Your task to perform on an android device: Search for the new Nintendo switch on Best Buy Image 0: 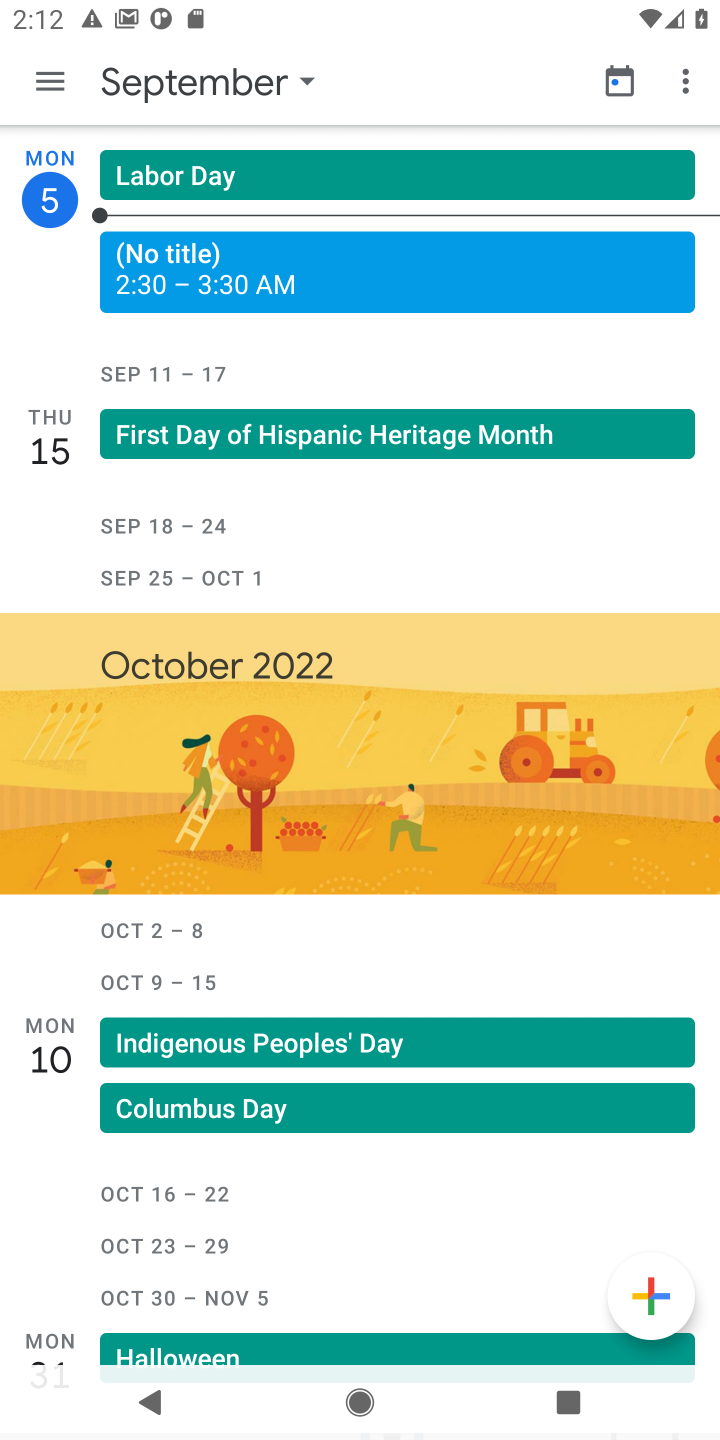
Step 0: press home button
Your task to perform on an android device: Search for the new Nintendo switch on Best Buy Image 1: 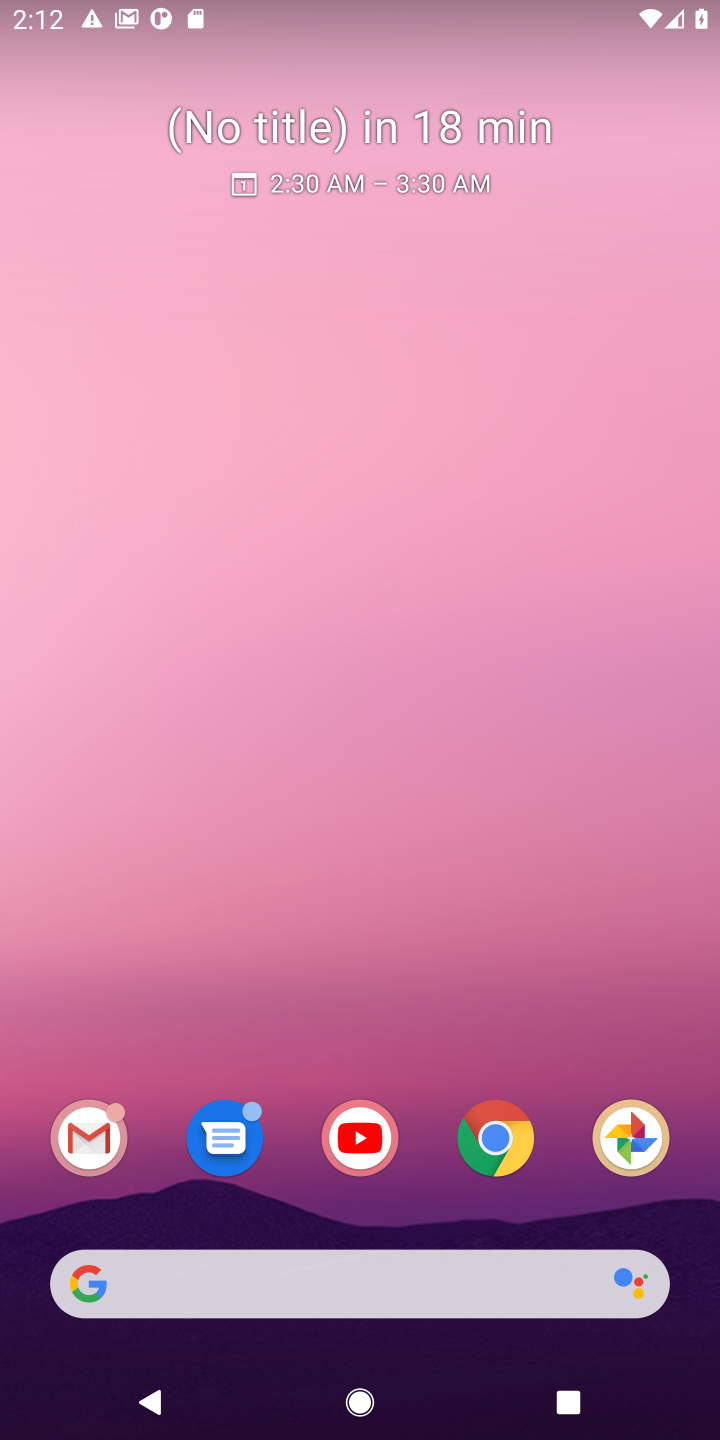
Step 1: drag from (439, 1248) to (510, 137)
Your task to perform on an android device: Search for the new Nintendo switch on Best Buy Image 2: 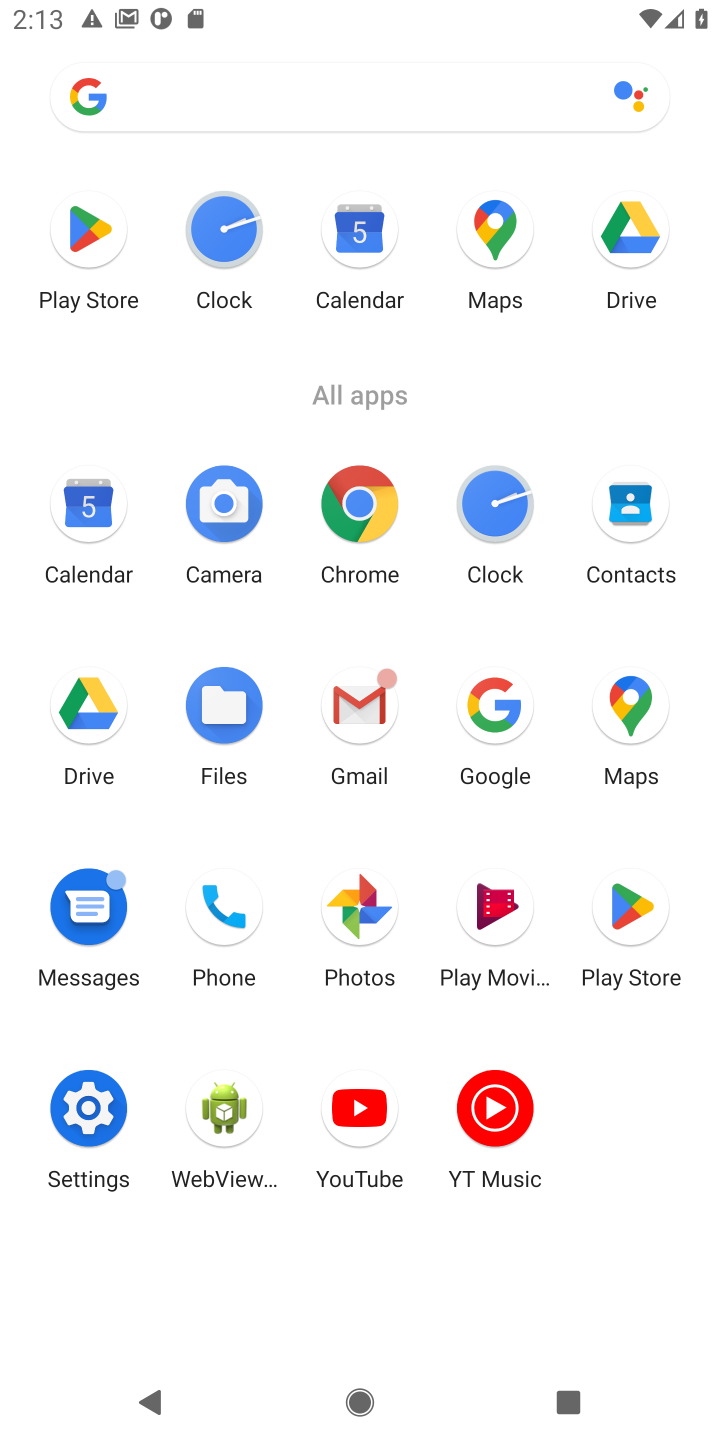
Step 2: click (363, 508)
Your task to perform on an android device: Search for the new Nintendo switch on Best Buy Image 3: 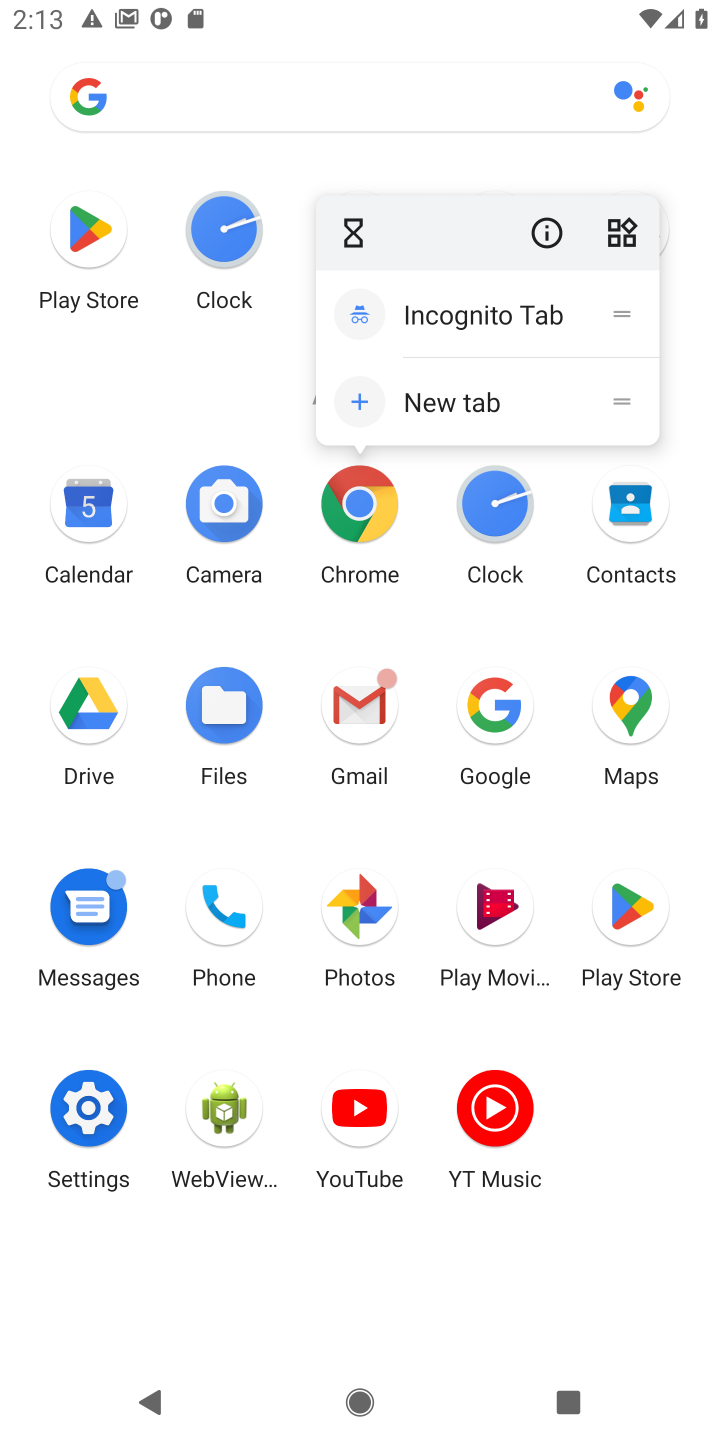
Step 3: click (359, 512)
Your task to perform on an android device: Search for the new Nintendo switch on Best Buy Image 4: 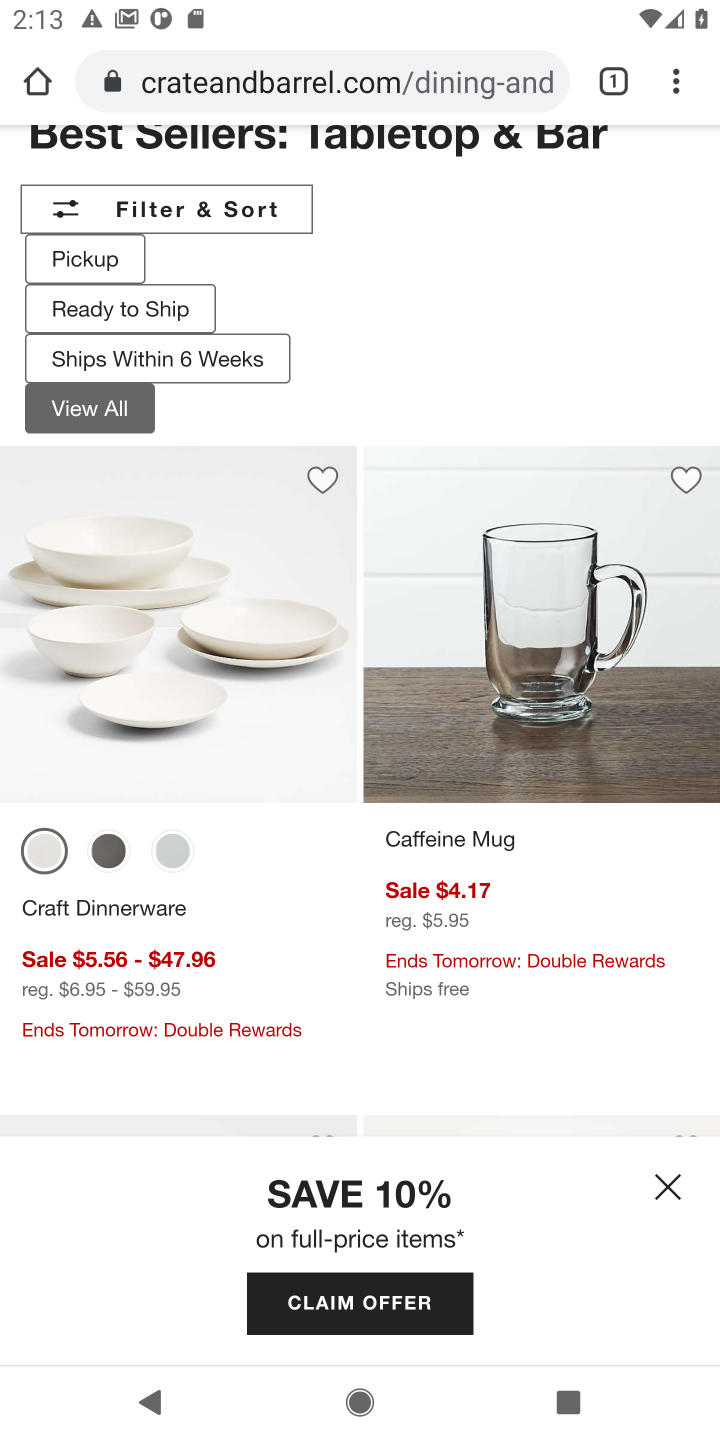
Step 4: click (440, 83)
Your task to perform on an android device: Search for the new Nintendo switch on Best Buy Image 5: 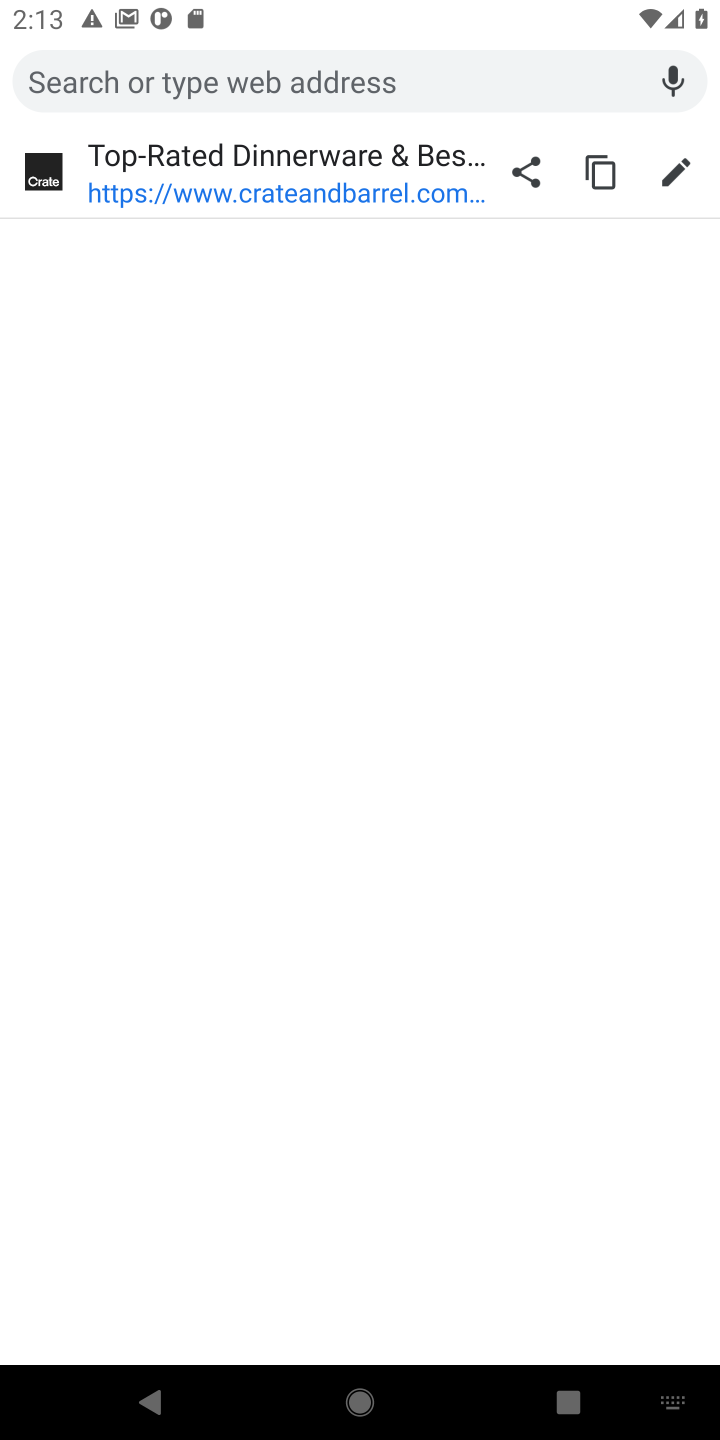
Step 5: type "new Nintendo switch on Best Buy"
Your task to perform on an android device: Search for the new Nintendo switch on Best Buy Image 6: 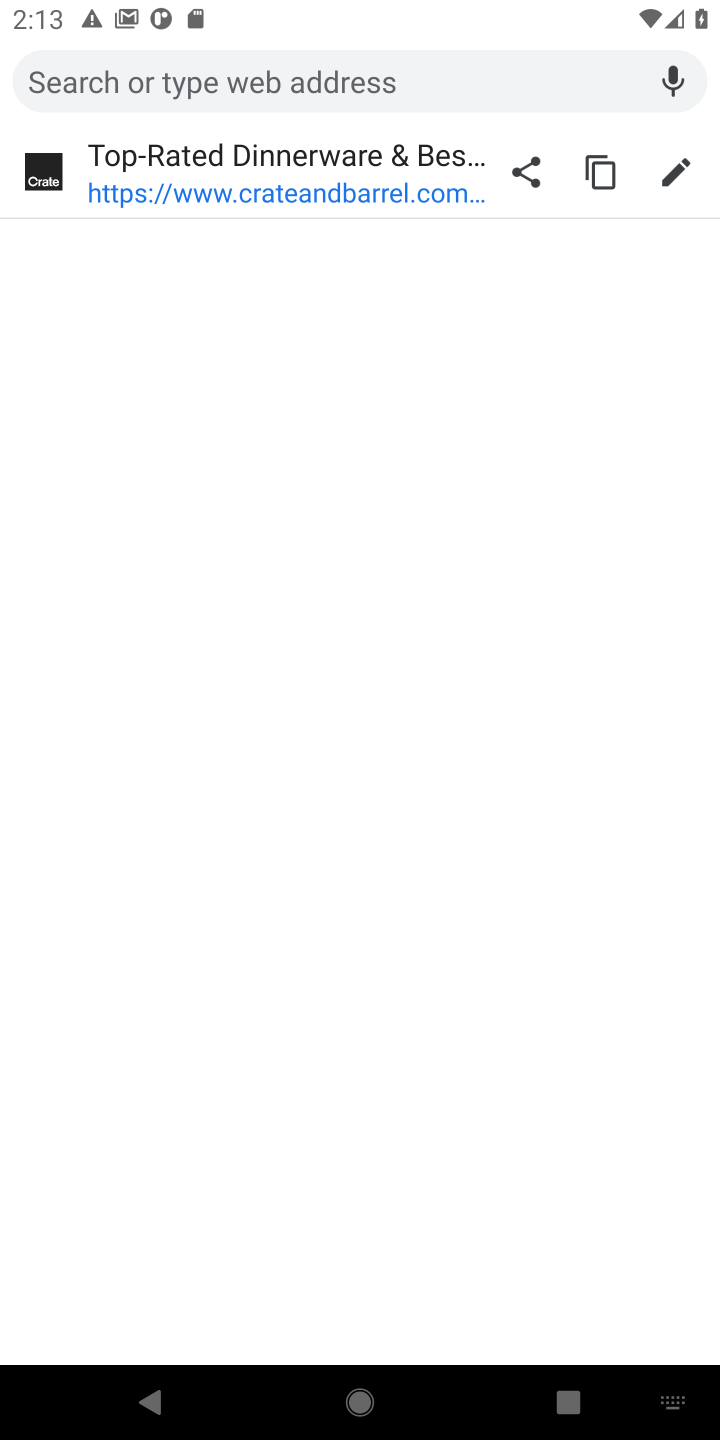
Step 6: click (229, 90)
Your task to perform on an android device: Search for the new Nintendo switch on Best Buy Image 7: 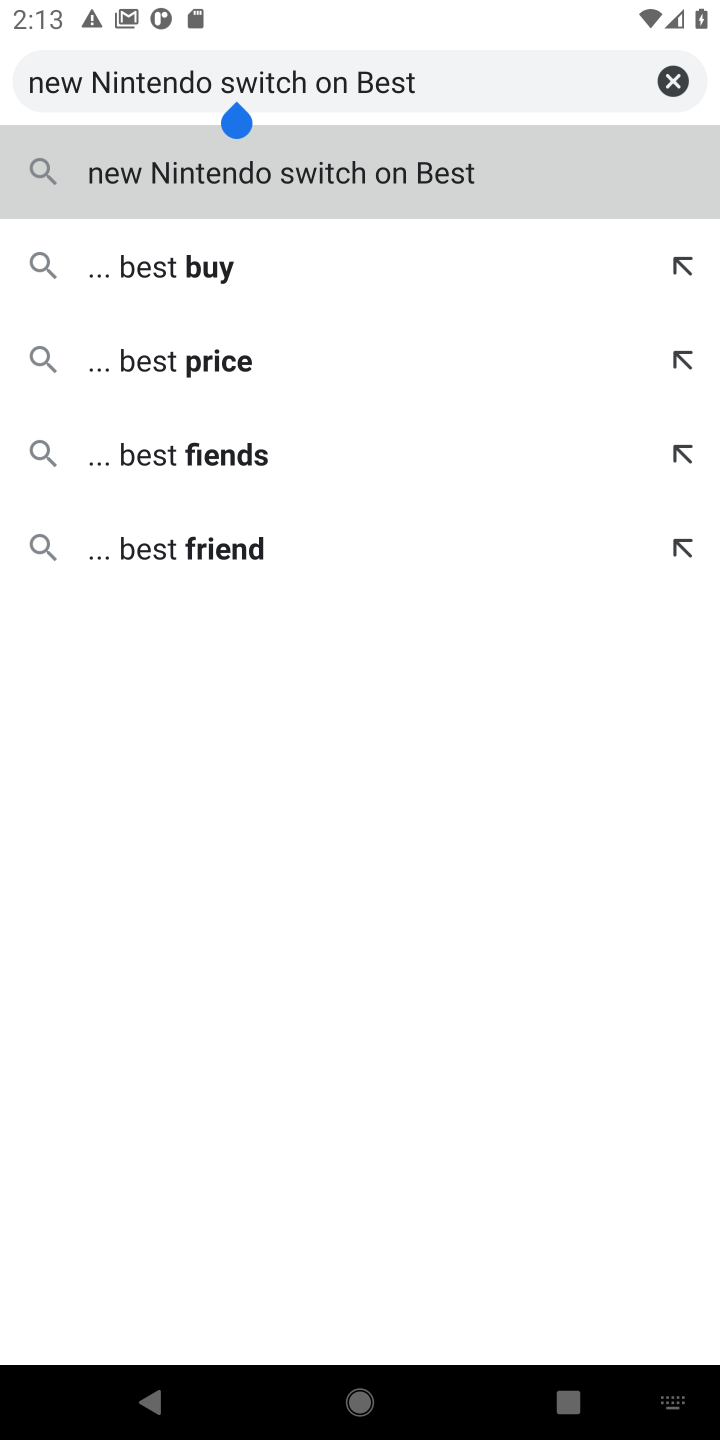
Step 7: click (438, 182)
Your task to perform on an android device: Search for the new Nintendo switch on Best Buy Image 8: 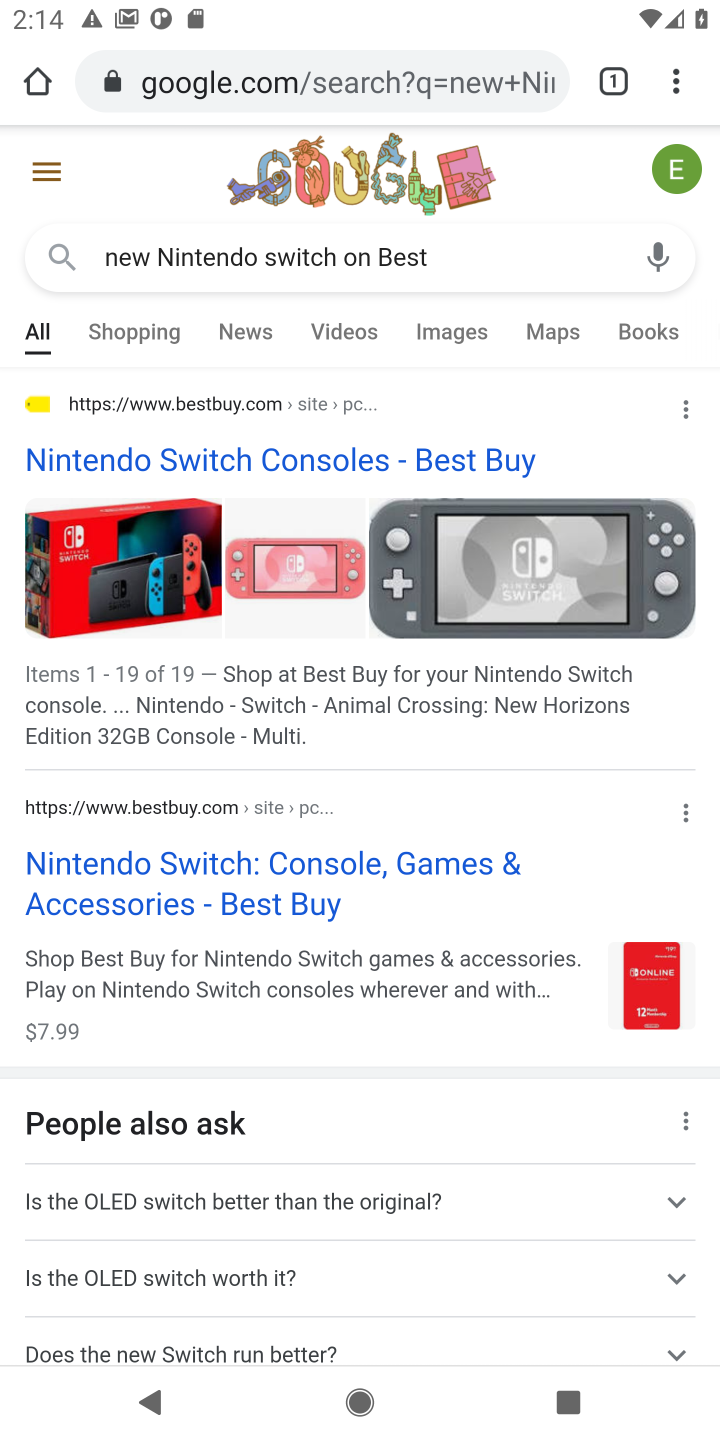
Step 8: click (322, 459)
Your task to perform on an android device: Search for the new Nintendo switch on Best Buy Image 9: 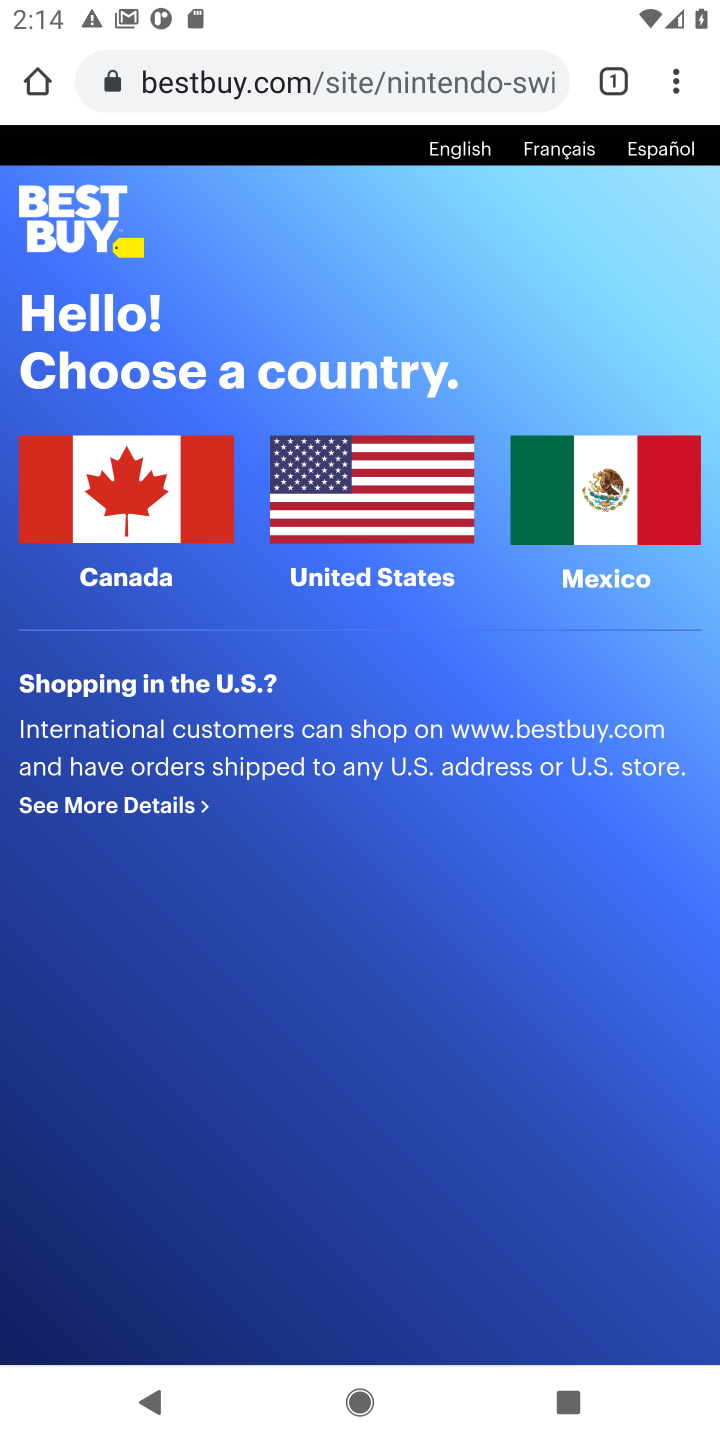
Step 9: click (322, 459)
Your task to perform on an android device: Search for the new Nintendo switch on Best Buy Image 10: 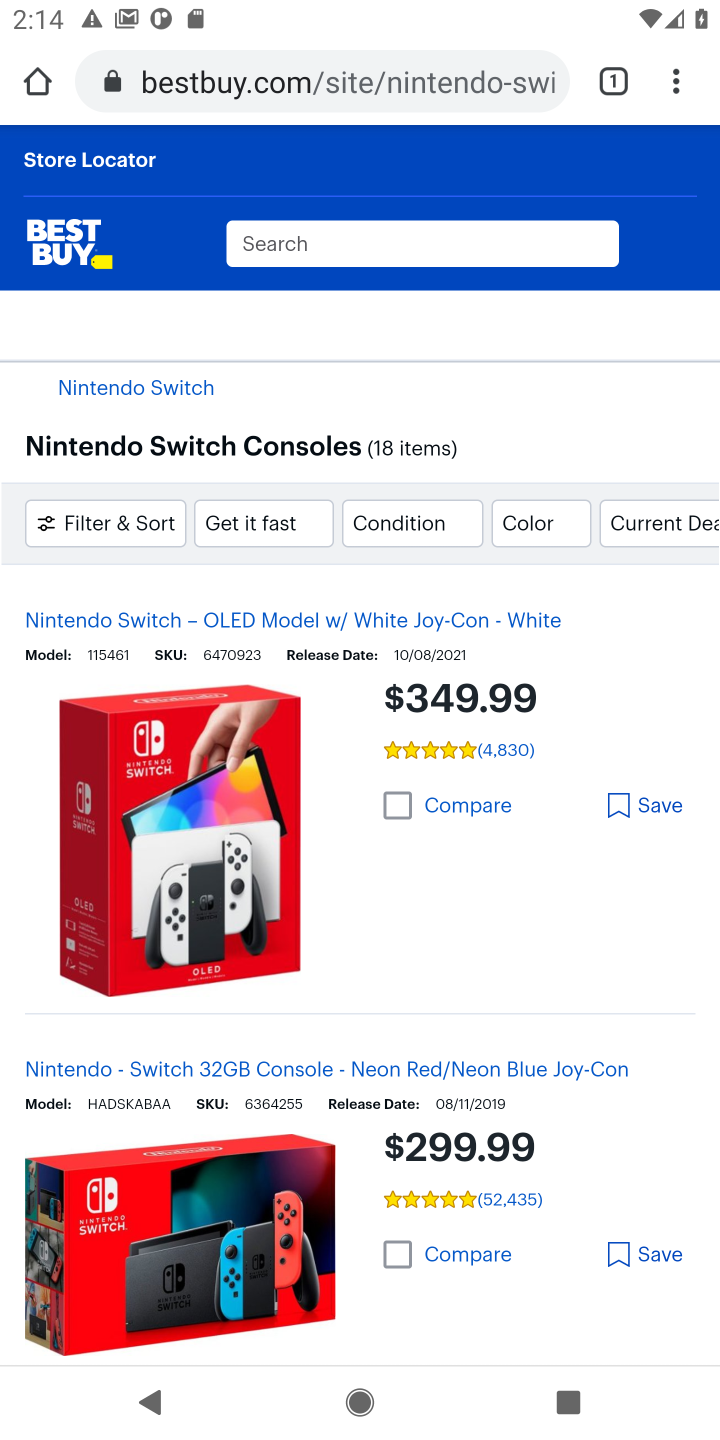
Step 10: task complete